Your task to perform on an android device: all mails in gmail Image 0: 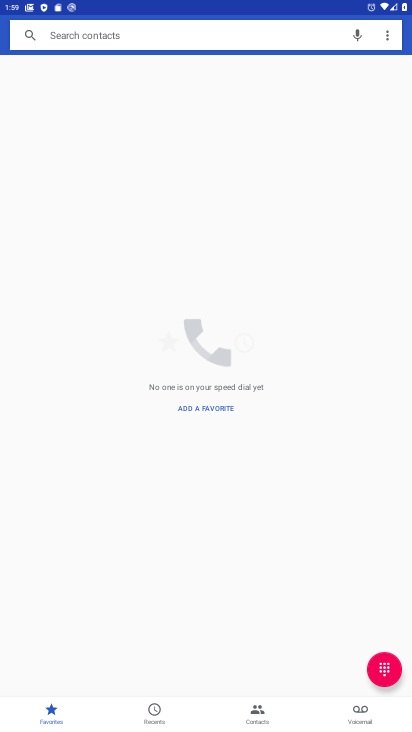
Step 0: press home button
Your task to perform on an android device: all mails in gmail Image 1: 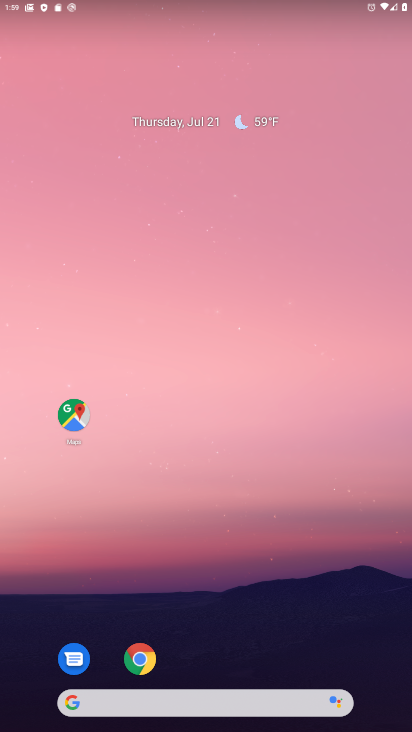
Step 1: drag from (259, 522) to (147, 20)
Your task to perform on an android device: all mails in gmail Image 2: 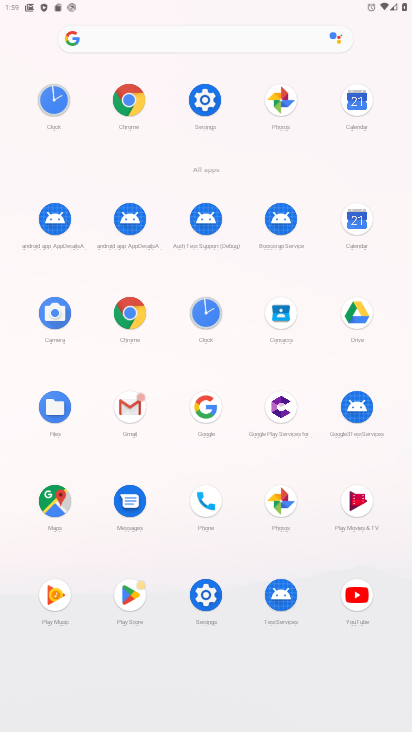
Step 2: click (133, 411)
Your task to perform on an android device: all mails in gmail Image 3: 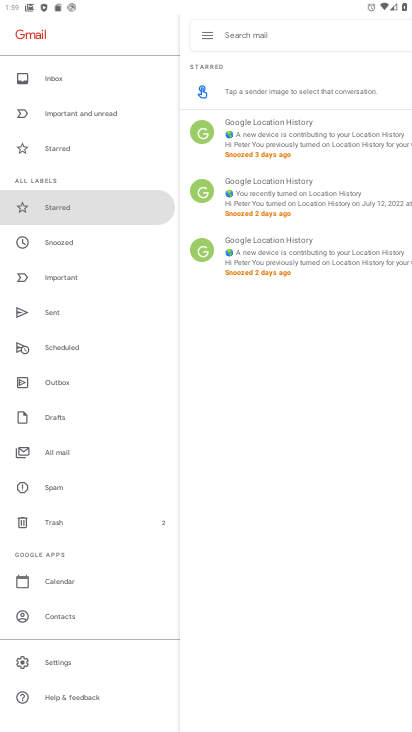
Step 3: click (62, 451)
Your task to perform on an android device: all mails in gmail Image 4: 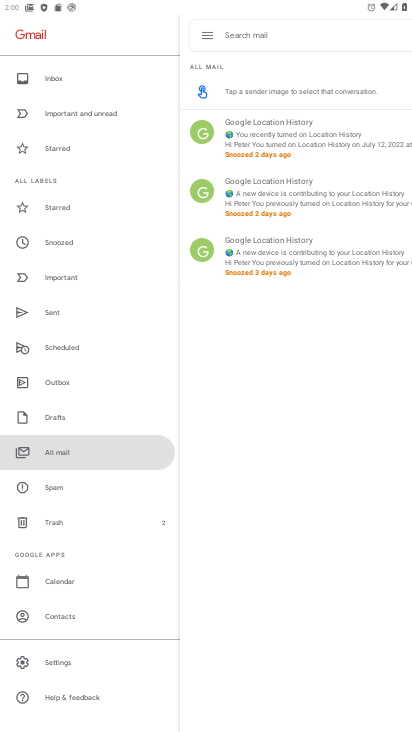
Step 4: task complete